Your task to perform on an android device: Open calendar and show me the first week of next month Image 0: 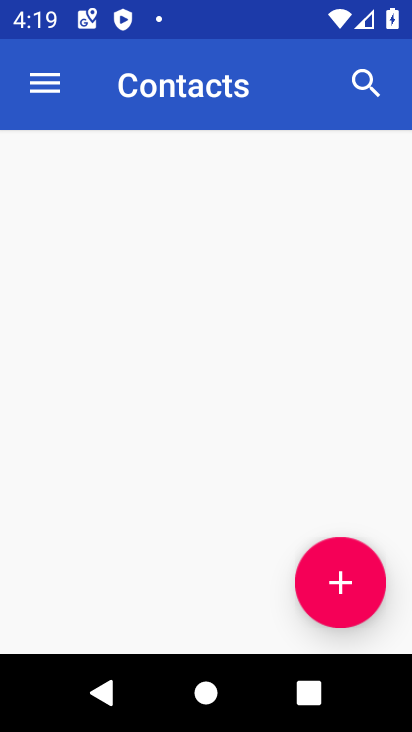
Step 0: drag from (192, 423) to (200, 3)
Your task to perform on an android device: Open calendar and show me the first week of next month Image 1: 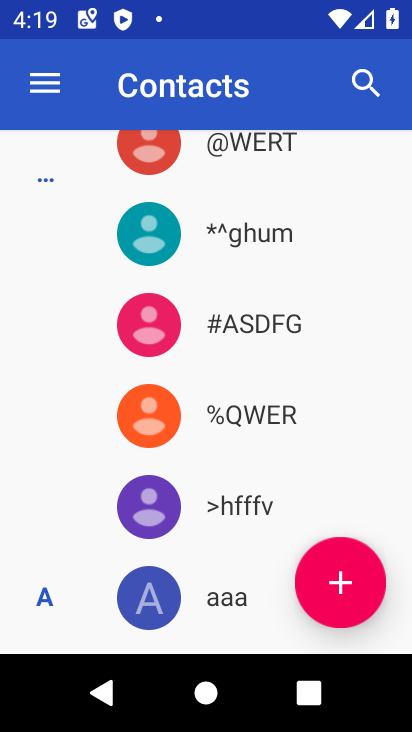
Step 1: press home button
Your task to perform on an android device: Open calendar and show me the first week of next month Image 2: 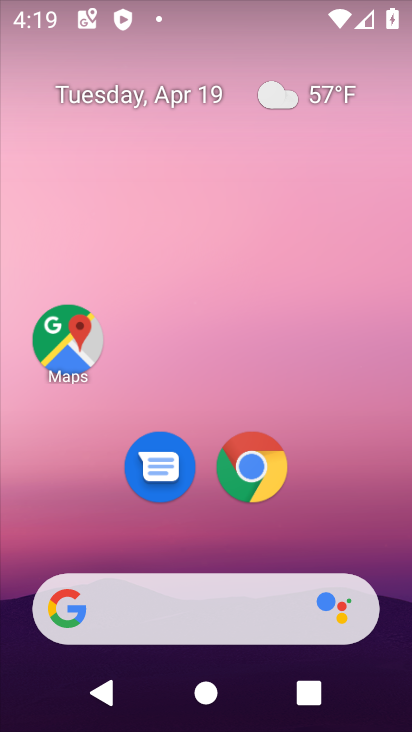
Step 2: drag from (229, 567) to (229, 11)
Your task to perform on an android device: Open calendar and show me the first week of next month Image 3: 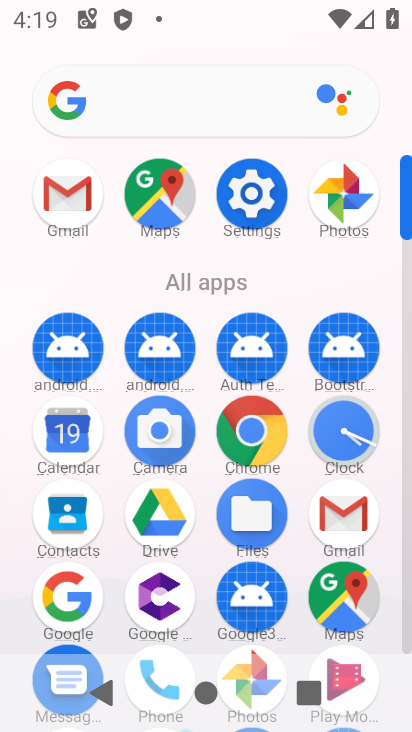
Step 3: click (89, 438)
Your task to perform on an android device: Open calendar and show me the first week of next month Image 4: 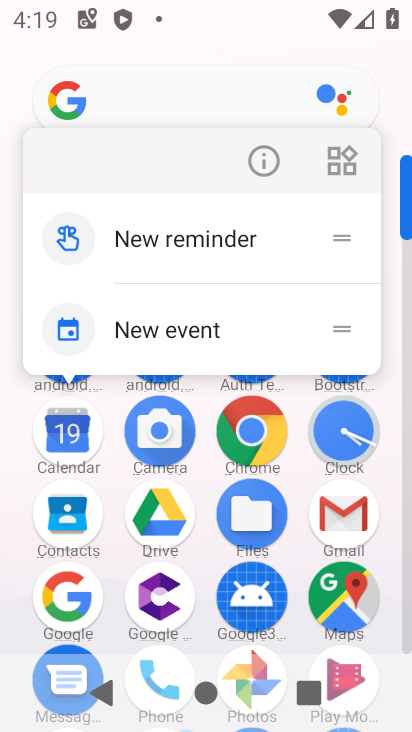
Step 4: click (71, 466)
Your task to perform on an android device: Open calendar and show me the first week of next month Image 5: 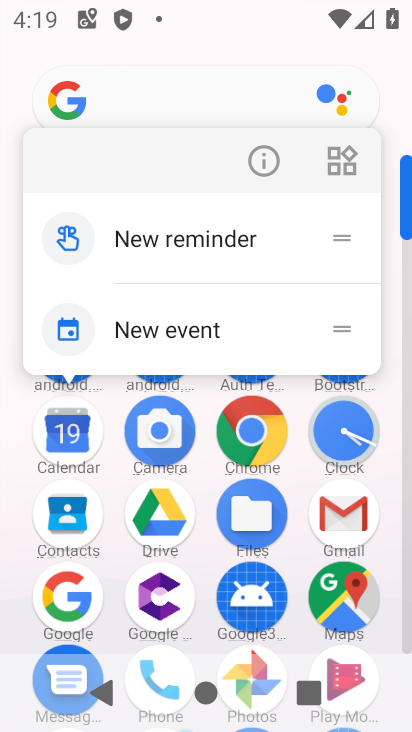
Step 5: click (71, 466)
Your task to perform on an android device: Open calendar and show me the first week of next month Image 6: 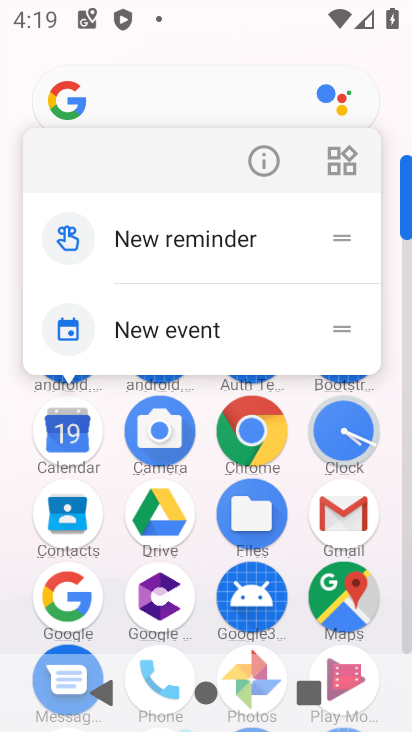
Step 6: click (52, 441)
Your task to perform on an android device: Open calendar and show me the first week of next month Image 7: 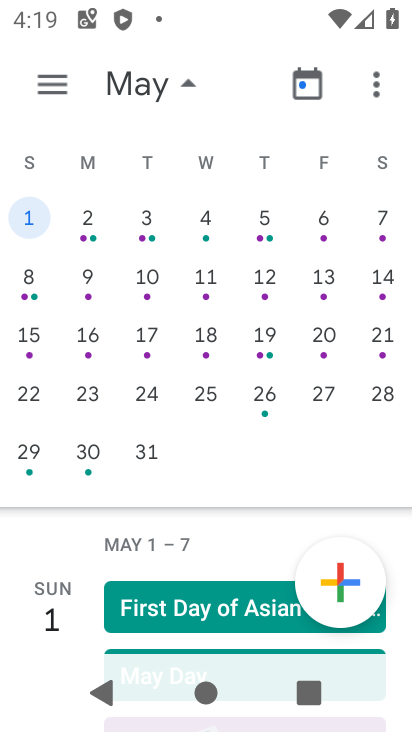
Step 7: task complete